Your task to perform on an android device: Search for alienware aurora on costco.com, select the first entry, add it to the cart, then select checkout. Image 0: 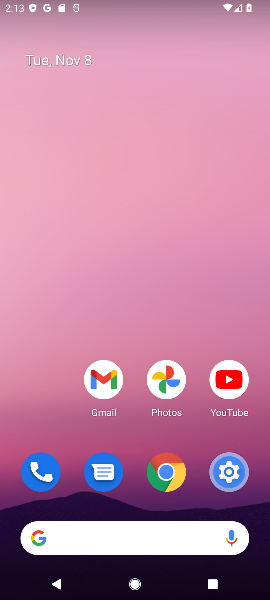
Step 0: click (162, 528)
Your task to perform on an android device: Search for alienware aurora on costco.com, select the first entry, add it to the cart, then select checkout. Image 1: 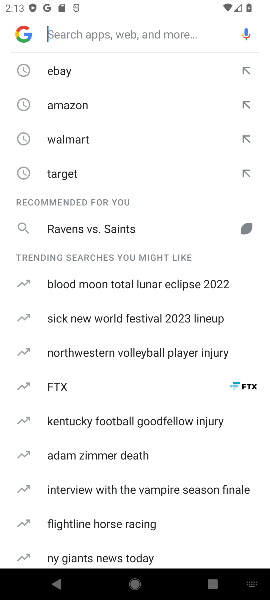
Step 1: type "costco"
Your task to perform on an android device: Search for alienware aurora on costco.com, select the first entry, add it to the cart, then select checkout. Image 2: 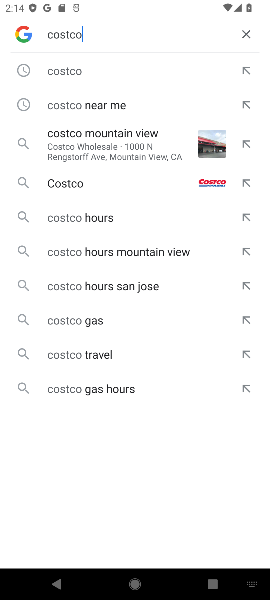
Step 2: click (155, 189)
Your task to perform on an android device: Search for alienware aurora on costco.com, select the first entry, add it to the cart, then select checkout. Image 3: 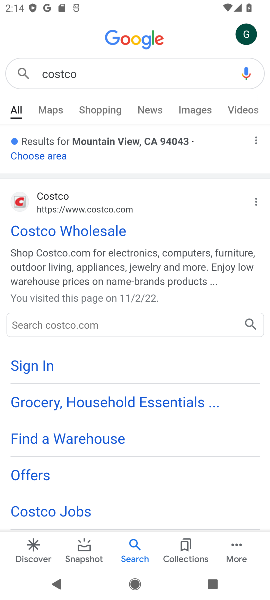
Step 3: click (124, 233)
Your task to perform on an android device: Search for alienware aurora on costco.com, select the first entry, add it to the cart, then select checkout. Image 4: 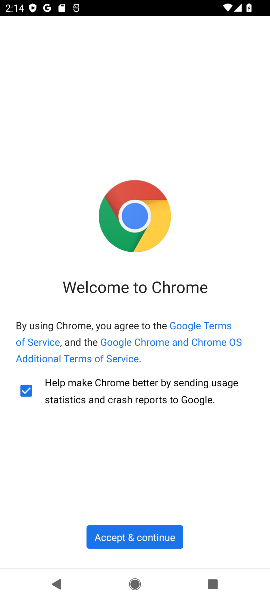
Step 4: click (166, 542)
Your task to perform on an android device: Search for alienware aurora on costco.com, select the first entry, add it to the cart, then select checkout. Image 5: 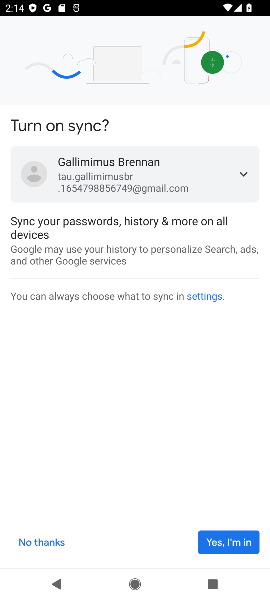
Step 5: click (246, 547)
Your task to perform on an android device: Search for alienware aurora on costco.com, select the first entry, add it to the cart, then select checkout. Image 6: 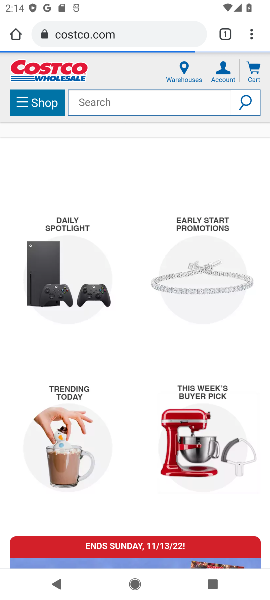
Step 6: click (122, 106)
Your task to perform on an android device: Search for alienware aurora on costco.com, select the first entry, add it to the cart, then select checkout. Image 7: 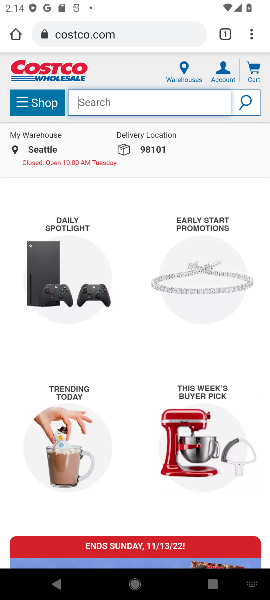
Step 7: type "alienware"
Your task to perform on an android device: Search for alienware aurora on costco.com, select the first entry, add it to the cart, then select checkout. Image 8: 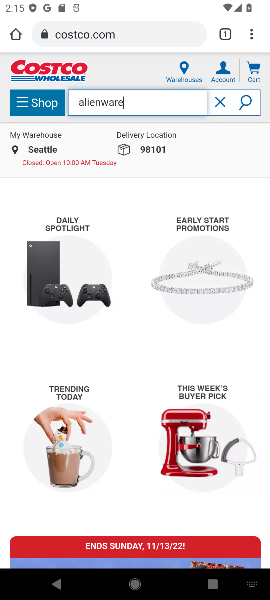
Step 8: click (248, 113)
Your task to perform on an android device: Search for alienware aurora on costco.com, select the first entry, add it to the cart, then select checkout. Image 9: 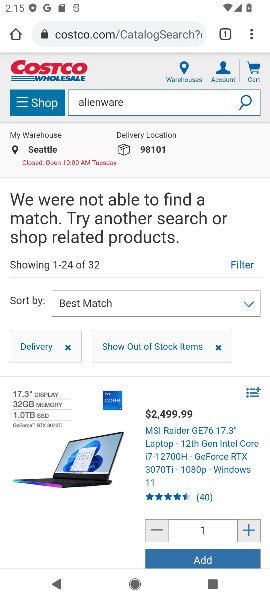
Step 9: click (191, 565)
Your task to perform on an android device: Search for alienware aurora on costco.com, select the first entry, add it to the cart, then select checkout. Image 10: 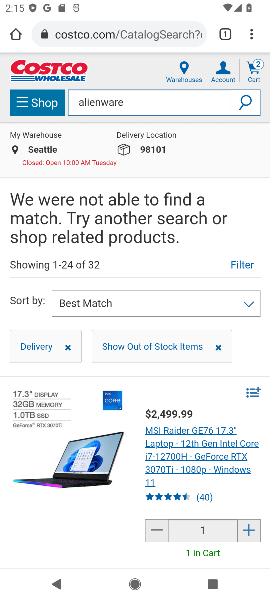
Step 10: task complete